Your task to perform on an android device: Search for Italian restaurants on Maps Image 0: 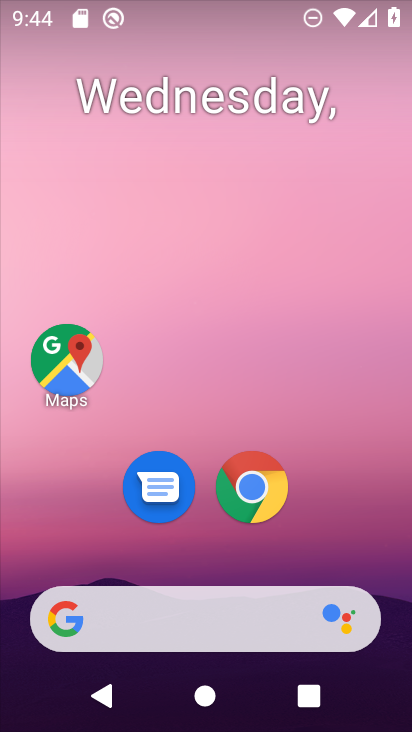
Step 0: drag from (254, 645) to (229, 131)
Your task to perform on an android device: Search for Italian restaurants on Maps Image 1: 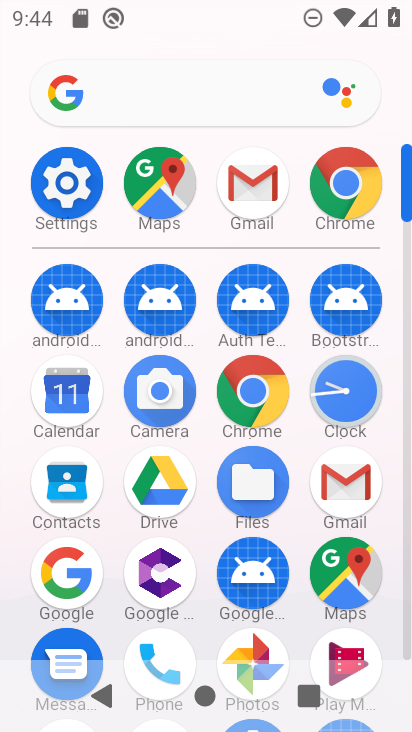
Step 1: click (165, 176)
Your task to perform on an android device: Search for Italian restaurants on Maps Image 2: 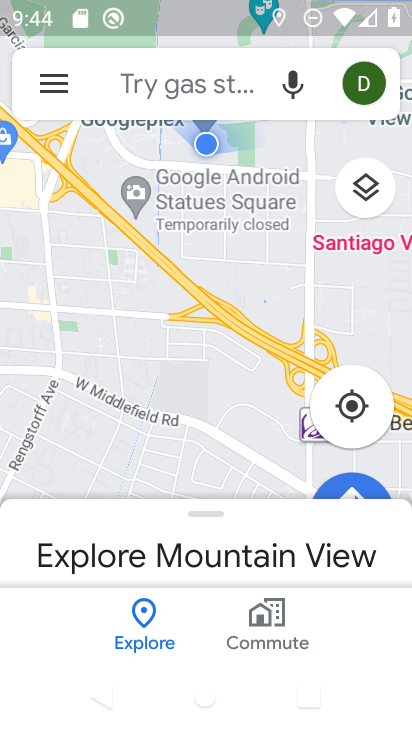
Step 2: click (226, 100)
Your task to perform on an android device: Search for Italian restaurants on Maps Image 3: 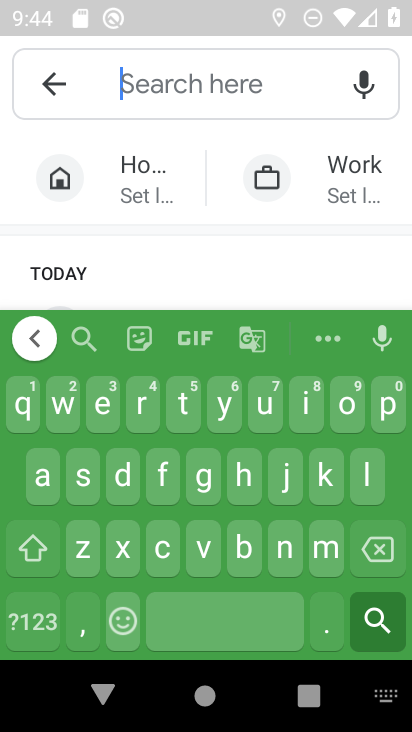
Step 3: click (309, 417)
Your task to perform on an android device: Search for Italian restaurants on Maps Image 4: 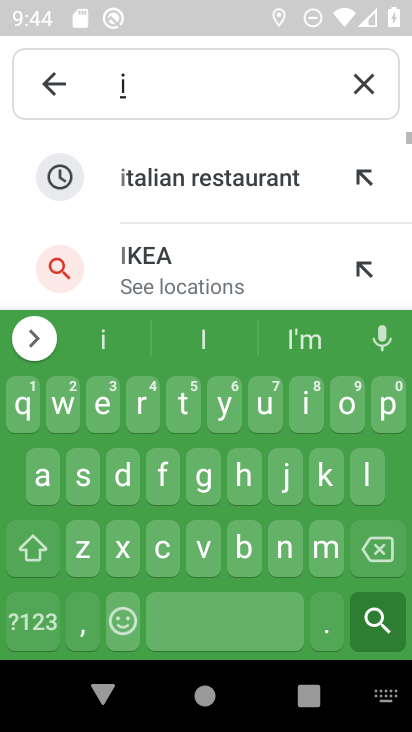
Step 4: click (195, 189)
Your task to perform on an android device: Search for Italian restaurants on Maps Image 5: 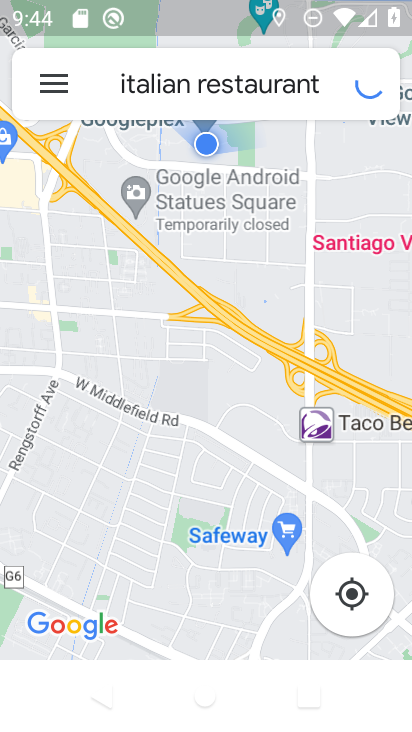
Step 5: task complete